Your task to perform on an android device: turn off picture-in-picture Image 0: 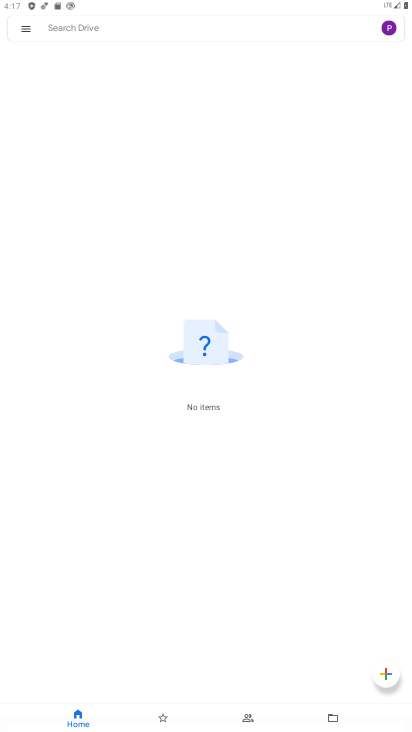
Step 0: press home button
Your task to perform on an android device: turn off picture-in-picture Image 1: 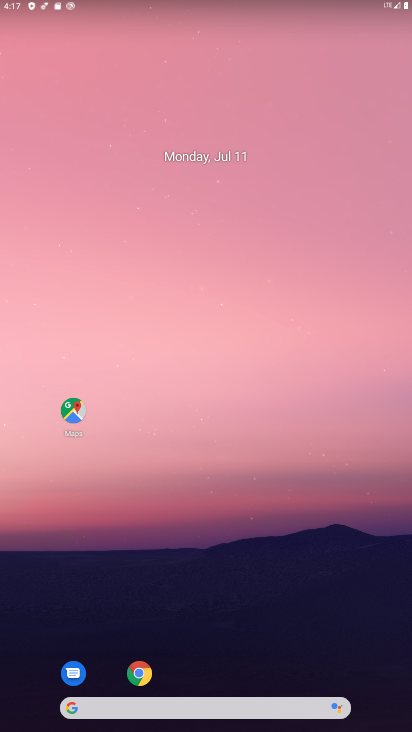
Step 1: drag from (286, 622) to (291, 112)
Your task to perform on an android device: turn off picture-in-picture Image 2: 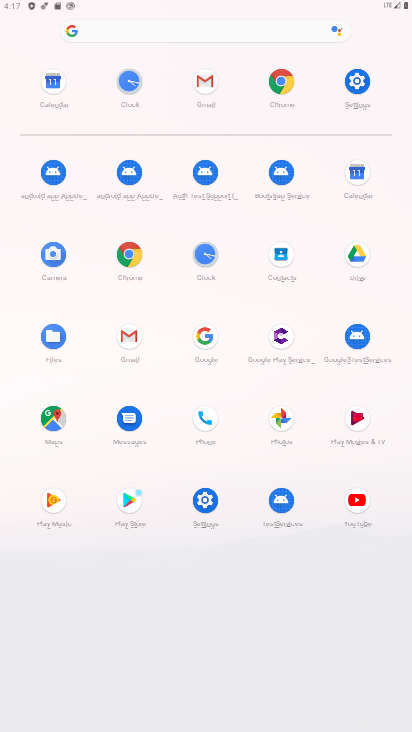
Step 2: click (286, 85)
Your task to perform on an android device: turn off picture-in-picture Image 3: 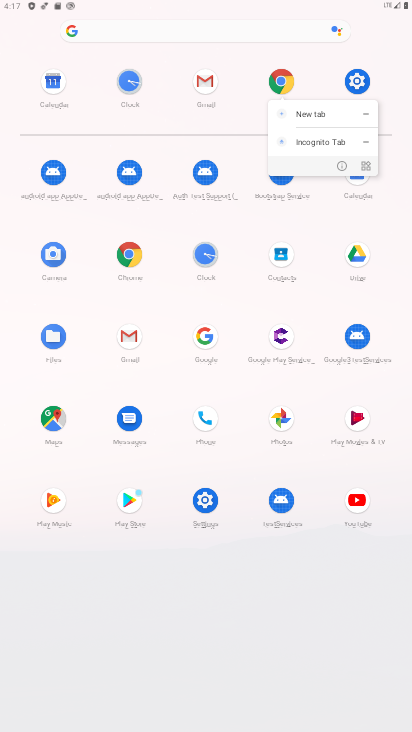
Step 3: click (342, 166)
Your task to perform on an android device: turn off picture-in-picture Image 4: 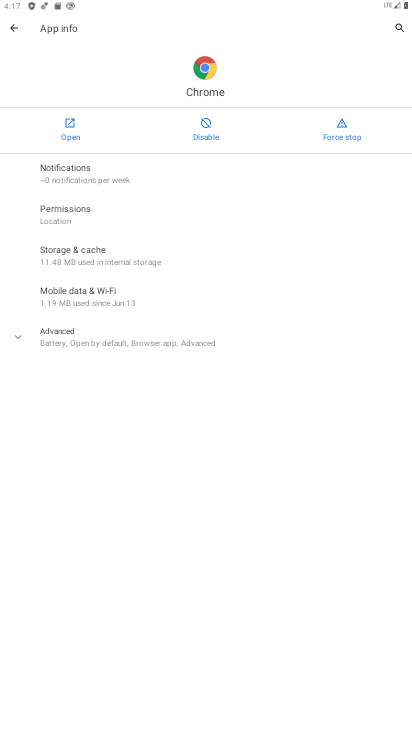
Step 4: click (198, 344)
Your task to perform on an android device: turn off picture-in-picture Image 5: 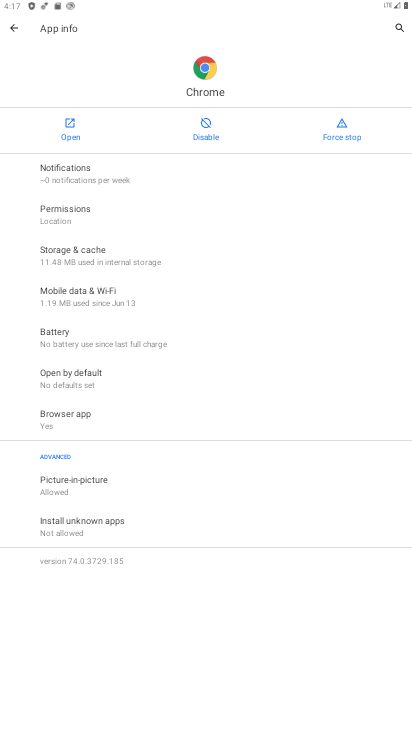
Step 5: click (95, 476)
Your task to perform on an android device: turn off picture-in-picture Image 6: 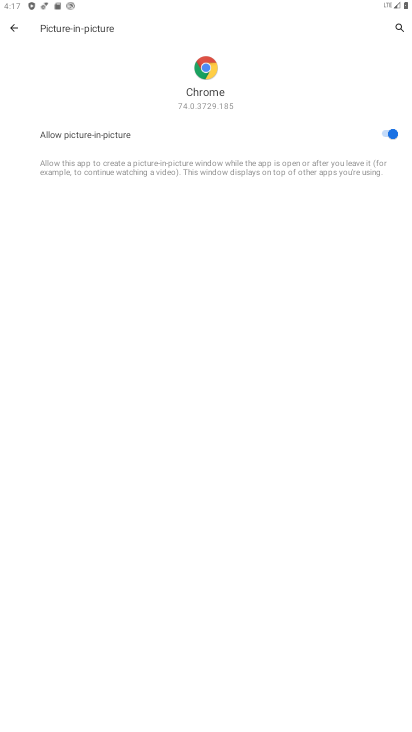
Step 6: click (386, 127)
Your task to perform on an android device: turn off picture-in-picture Image 7: 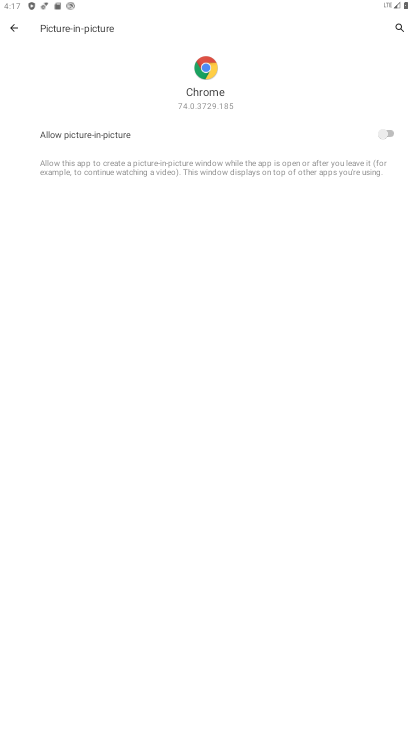
Step 7: task complete